Your task to perform on an android device: Go to settings Image 0: 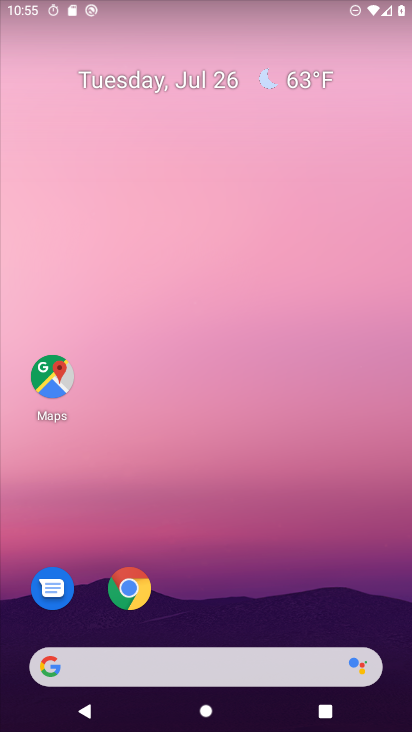
Step 0: drag from (176, 620) to (285, 99)
Your task to perform on an android device: Go to settings Image 1: 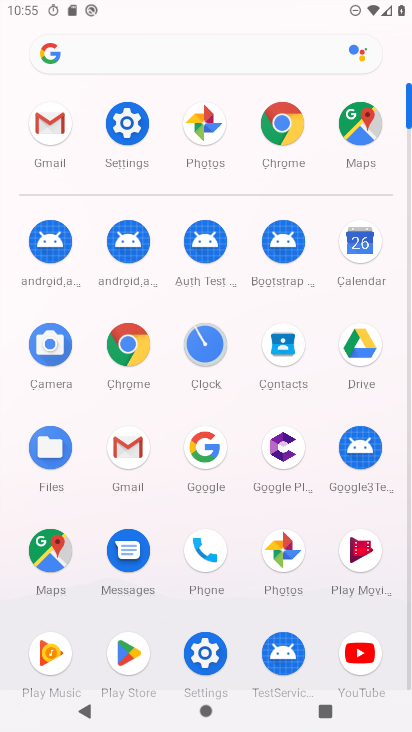
Step 1: click (130, 119)
Your task to perform on an android device: Go to settings Image 2: 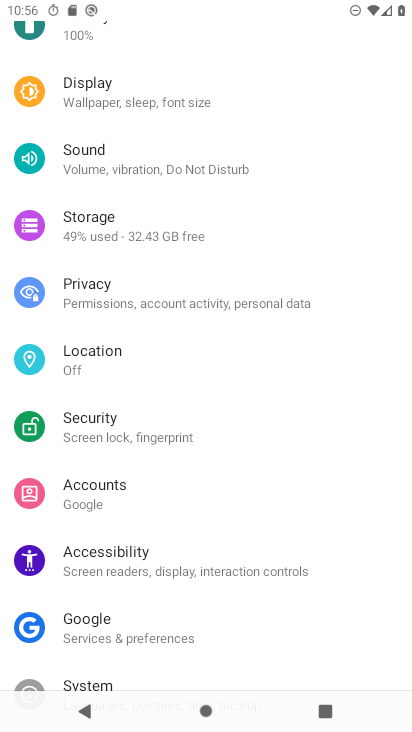
Step 2: task complete